Your task to perform on an android device: turn off sleep mode Image 0: 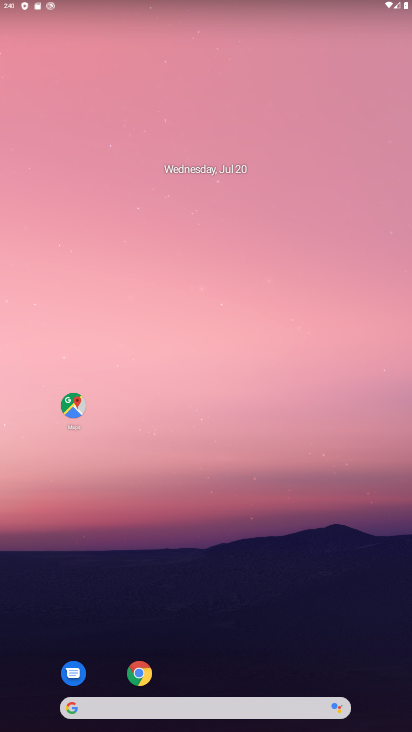
Step 0: press home button
Your task to perform on an android device: turn off sleep mode Image 1: 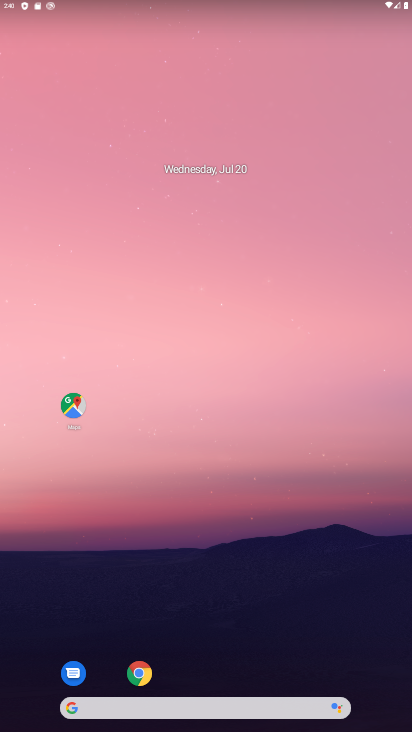
Step 1: drag from (235, 2) to (210, 369)
Your task to perform on an android device: turn off sleep mode Image 2: 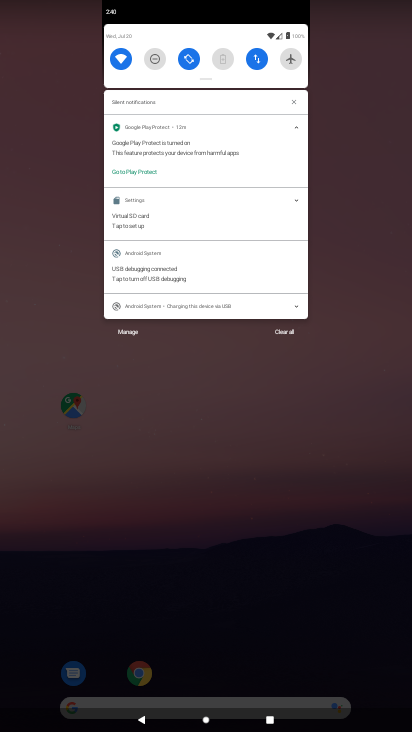
Step 2: click (189, 414)
Your task to perform on an android device: turn off sleep mode Image 3: 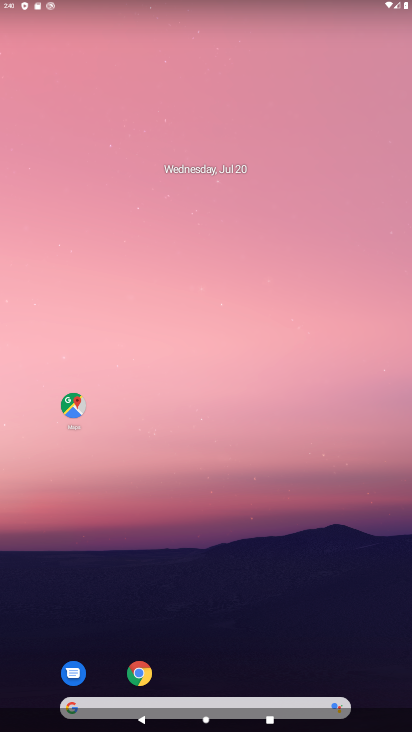
Step 3: task complete